Your task to perform on an android device: open app "Mercado Libre" (install if not already installed) and go to login screen Image 0: 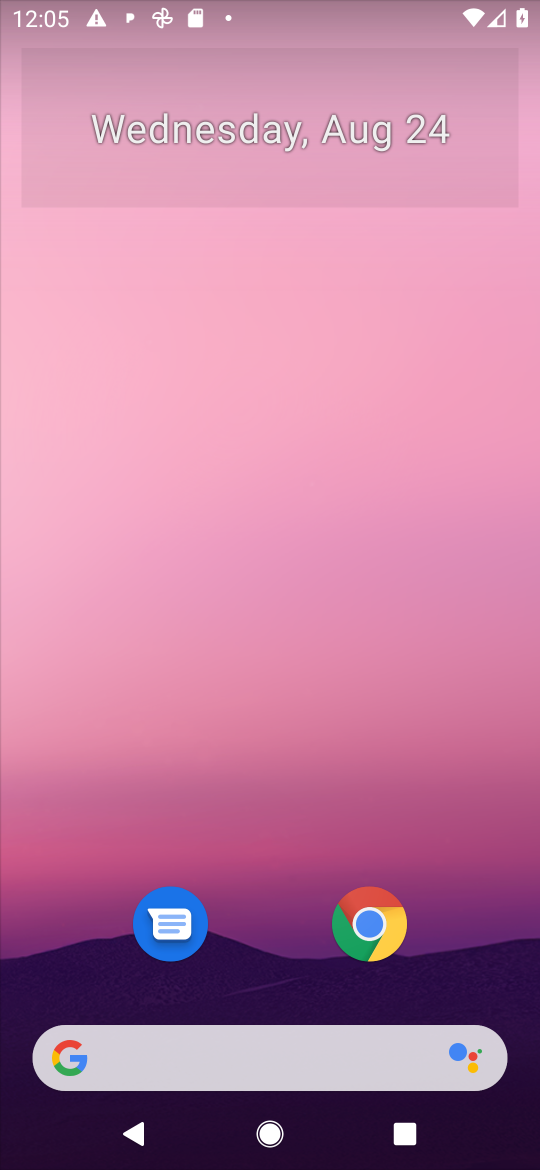
Step 0: press home button
Your task to perform on an android device: open app "Mercado Libre" (install if not already installed) and go to login screen Image 1: 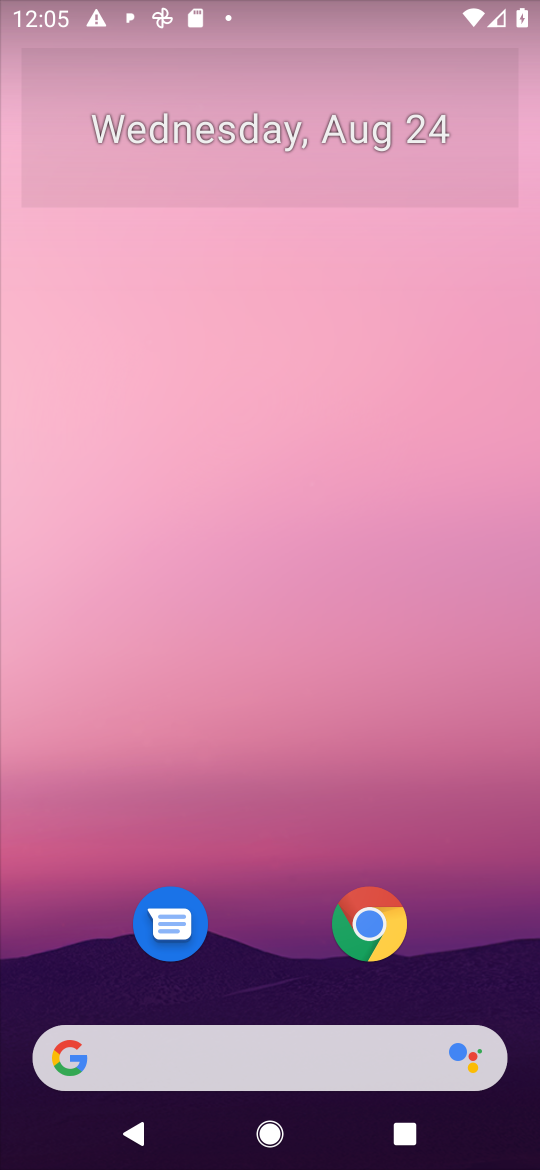
Step 1: drag from (491, 794) to (489, 158)
Your task to perform on an android device: open app "Mercado Libre" (install if not already installed) and go to login screen Image 2: 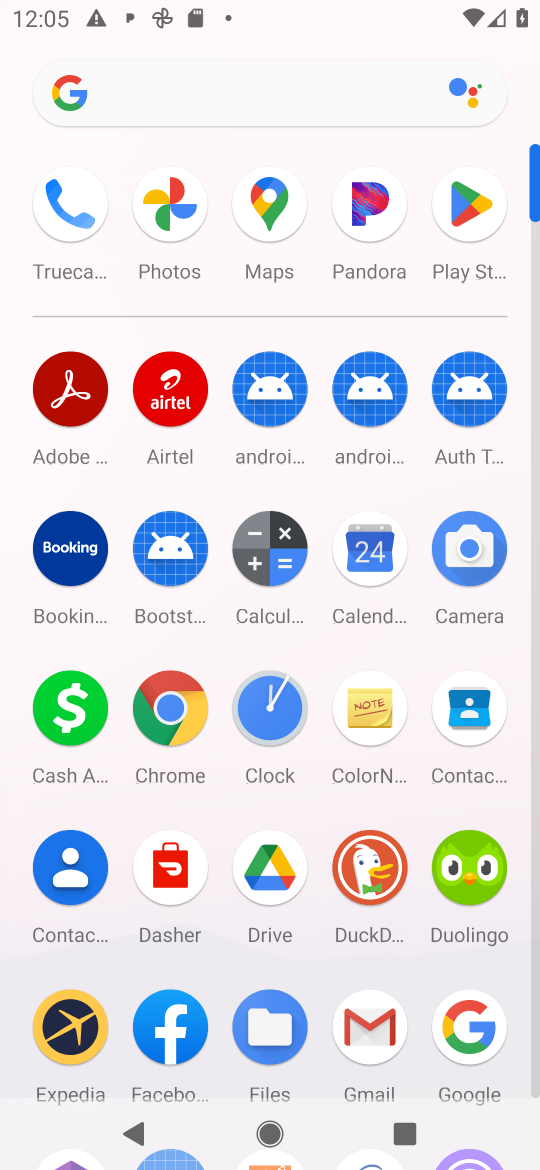
Step 2: click (471, 210)
Your task to perform on an android device: open app "Mercado Libre" (install if not already installed) and go to login screen Image 3: 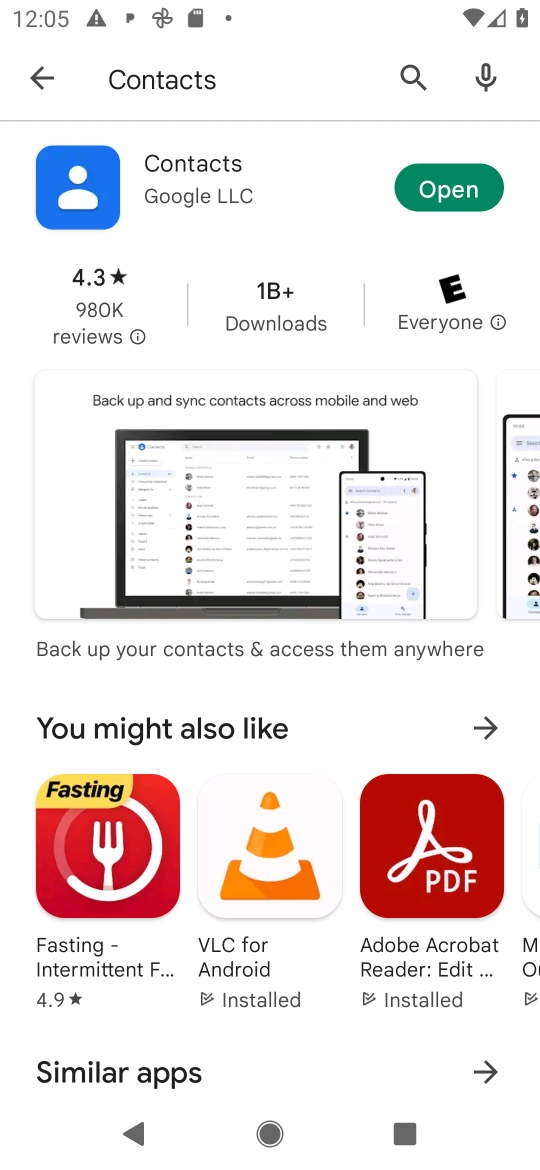
Step 3: press back button
Your task to perform on an android device: open app "Mercado Libre" (install if not already installed) and go to login screen Image 4: 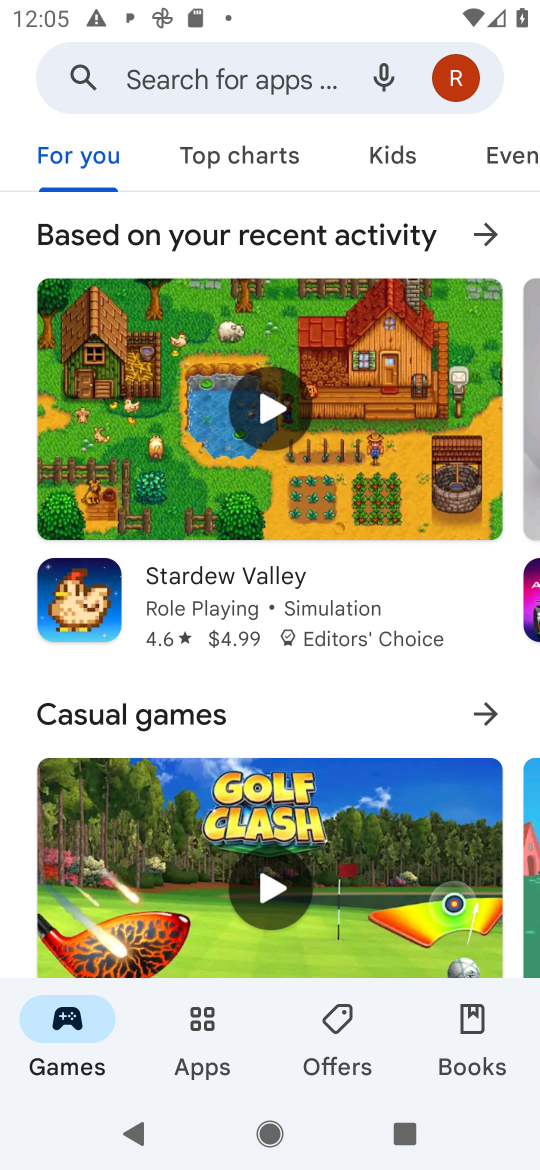
Step 4: click (196, 70)
Your task to perform on an android device: open app "Mercado Libre" (install if not already installed) and go to login screen Image 5: 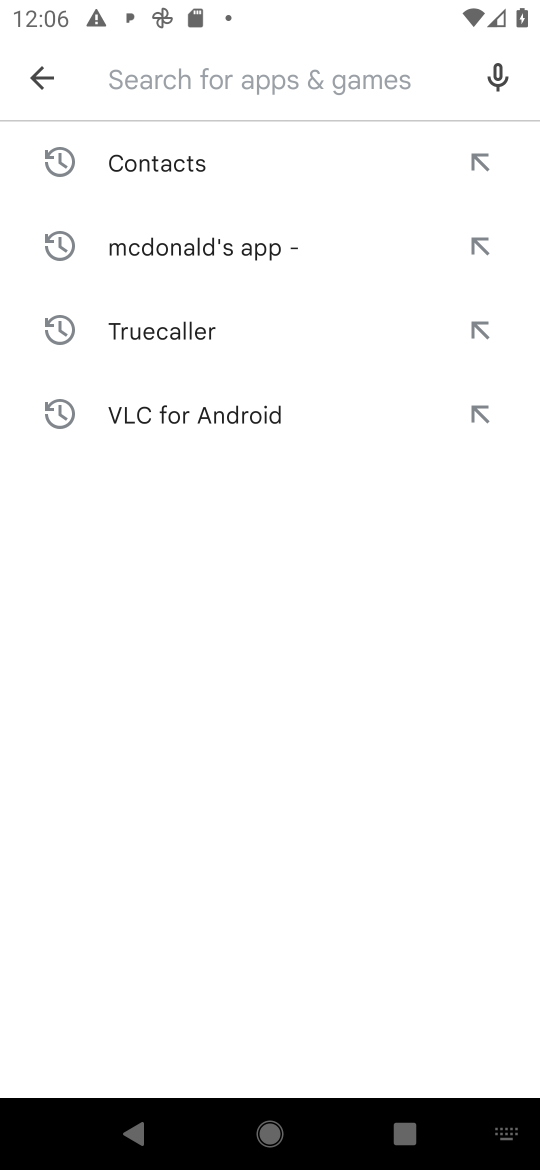
Step 5: press enter
Your task to perform on an android device: open app "Mercado Libre" (install if not already installed) and go to login screen Image 6: 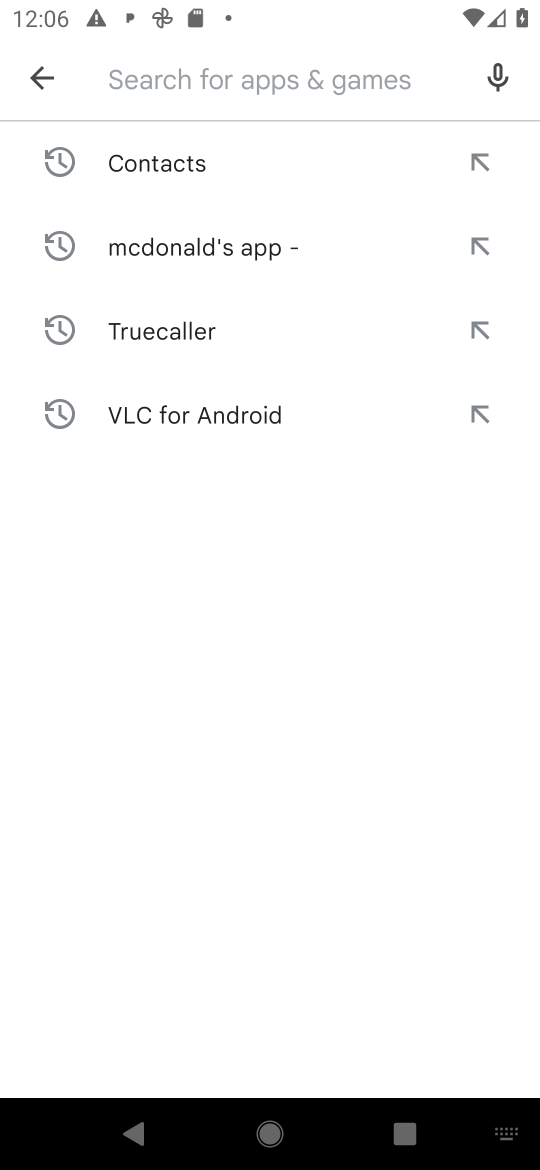
Step 6: type "Mercado Libre"
Your task to perform on an android device: open app "Mercado Libre" (install if not already installed) and go to login screen Image 7: 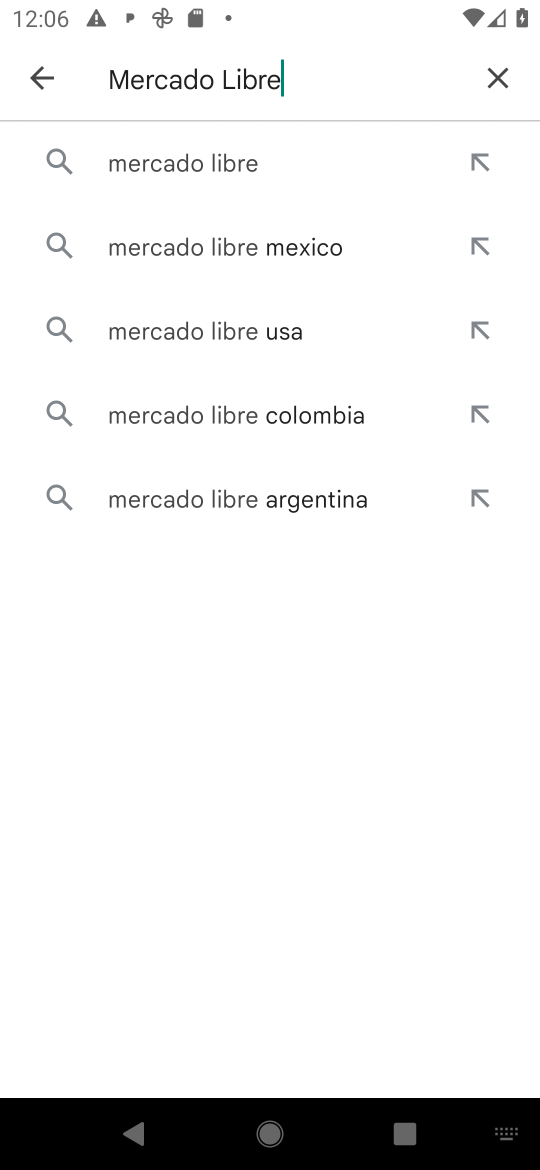
Step 7: click (236, 167)
Your task to perform on an android device: open app "Mercado Libre" (install if not already installed) and go to login screen Image 8: 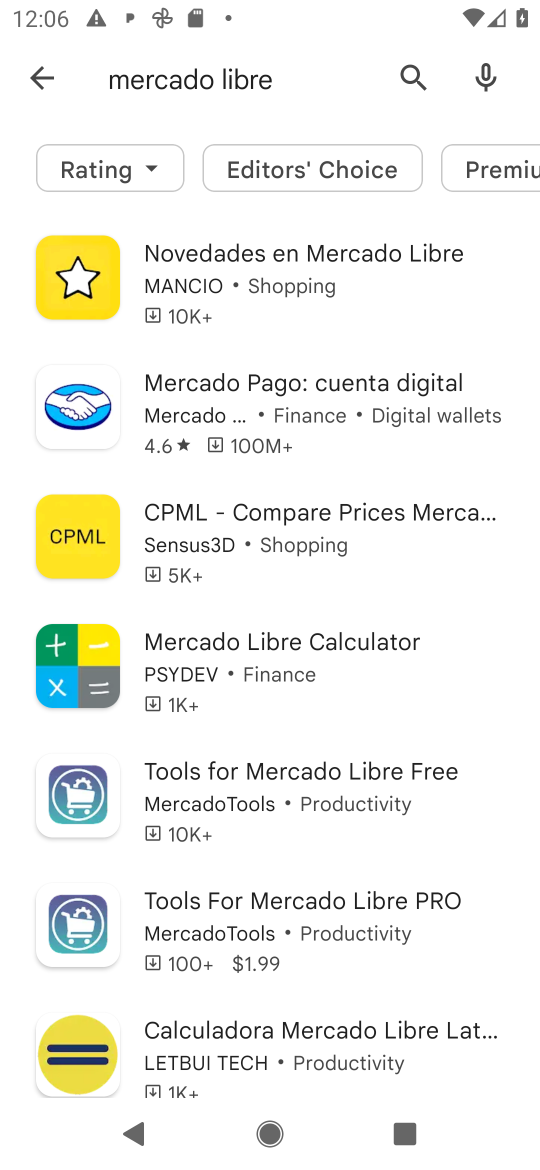
Step 8: task complete